Your task to perform on an android device: Open location settings Image 0: 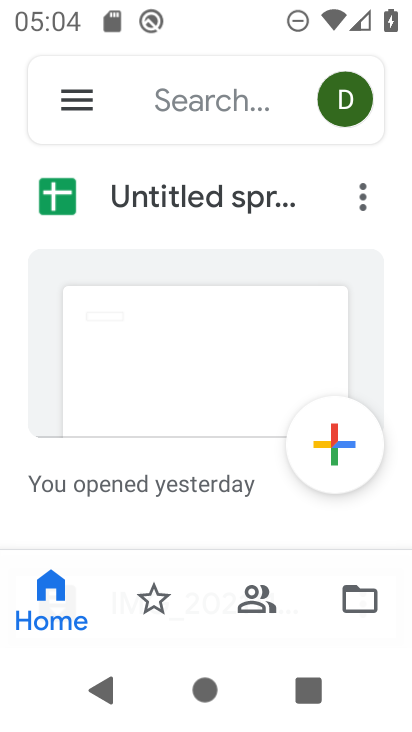
Step 0: click (211, 15)
Your task to perform on an android device: Open location settings Image 1: 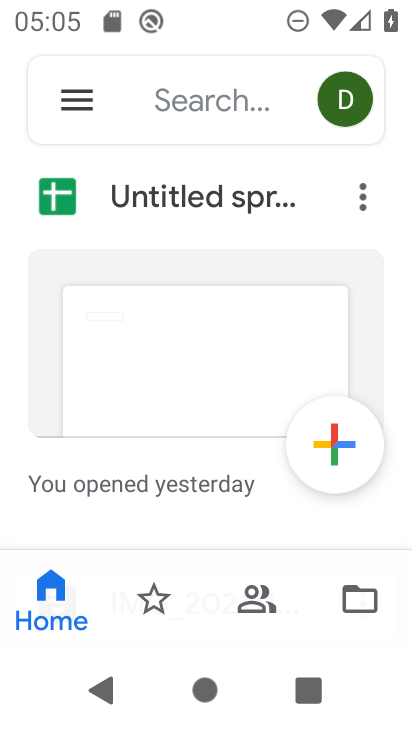
Step 1: press home button
Your task to perform on an android device: Open location settings Image 2: 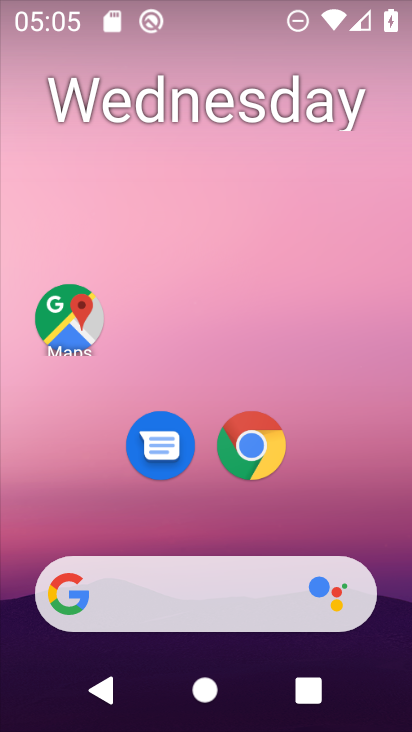
Step 2: drag from (206, 534) to (156, 182)
Your task to perform on an android device: Open location settings Image 3: 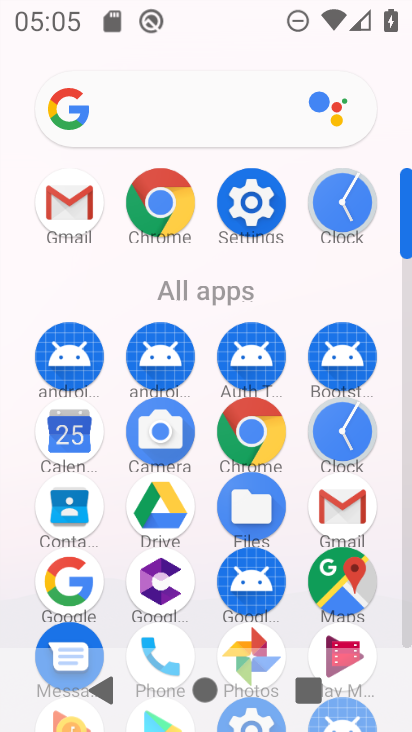
Step 3: click (269, 198)
Your task to perform on an android device: Open location settings Image 4: 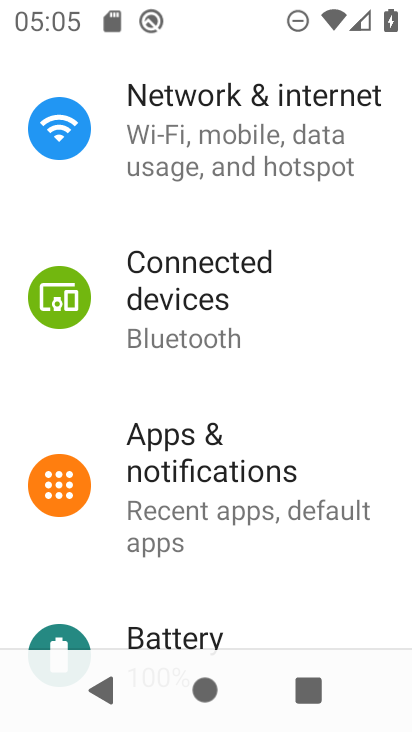
Step 4: drag from (152, 602) to (204, 55)
Your task to perform on an android device: Open location settings Image 5: 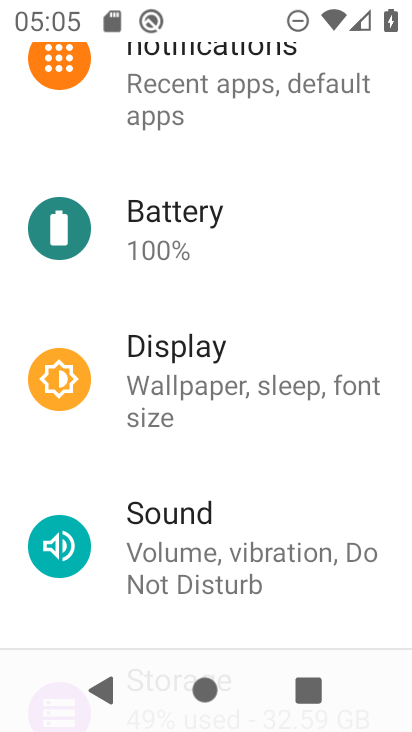
Step 5: drag from (101, 626) to (186, 104)
Your task to perform on an android device: Open location settings Image 6: 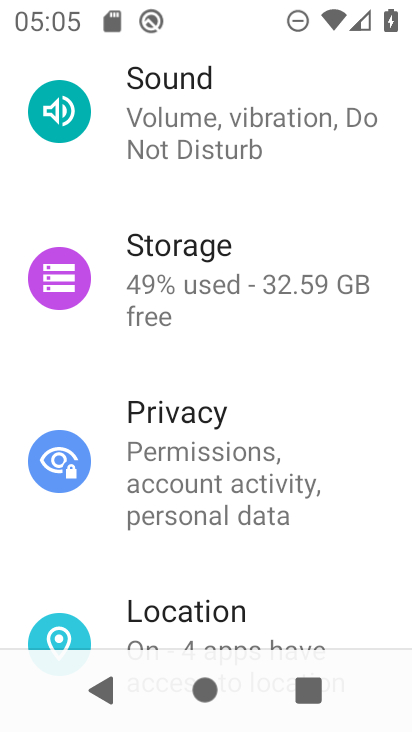
Step 6: click (154, 634)
Your task to perform on an android device: Open location settings Image 7: 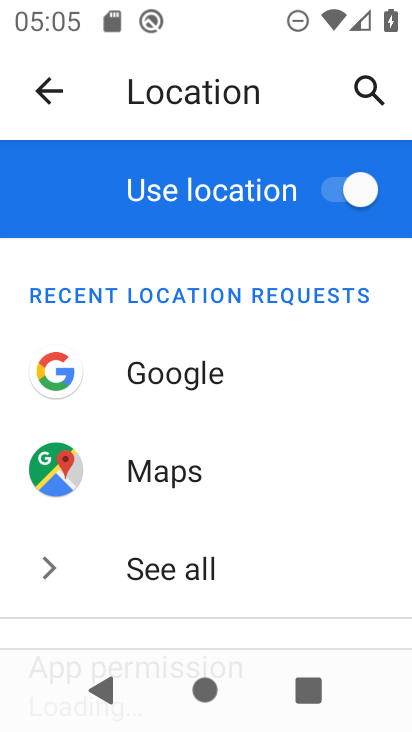
Step 7: task complete